Your task to perform on an android device: Open privacy settings Image 0: 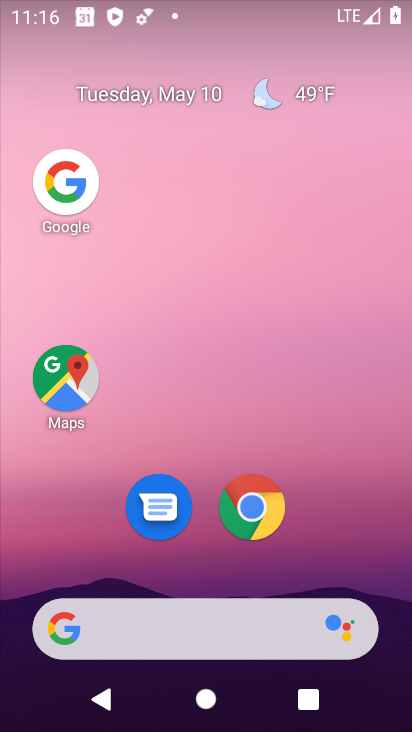
Step 0: drag from (343, 577) to (397, 123)
Your task to perform on an android device: Open privacy settings Image 1: 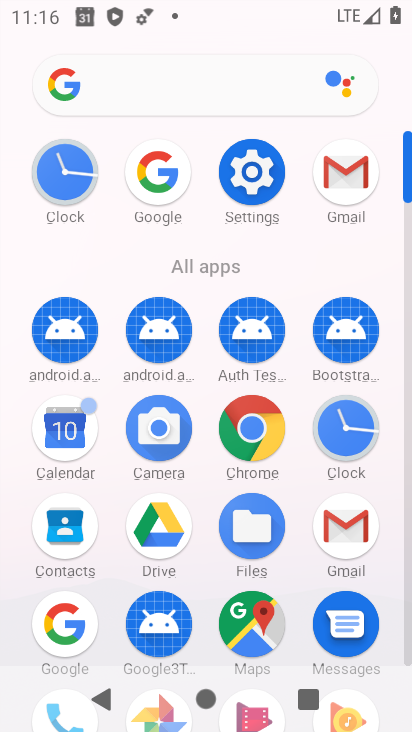
Step 1: click (263, 185)
Your task to perform on an android device: Open privacy settings Image 2: 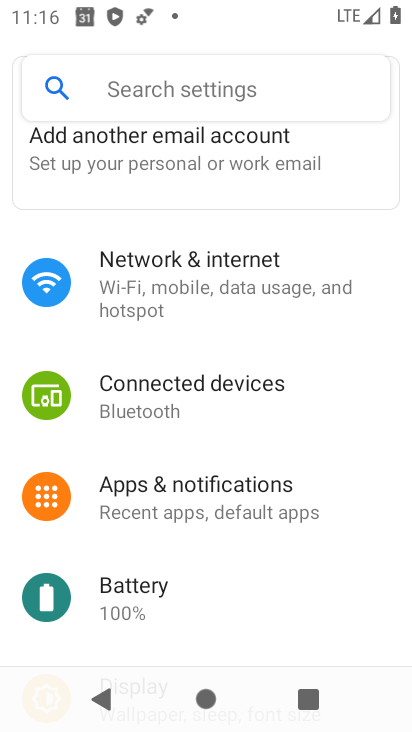
Step 2: drag from (264, 556) to (298, 161)
Your task to perform on an android device: Open privacy settings Image 3: 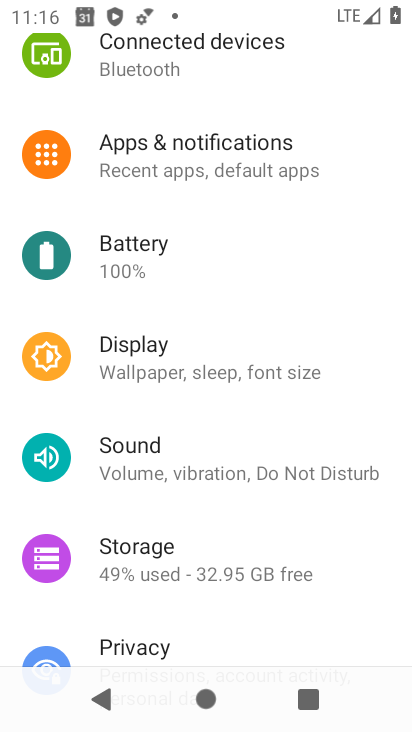
Step 3: click (212, 632)
Your task to perform on an android device: Open privacy settings Image 4: 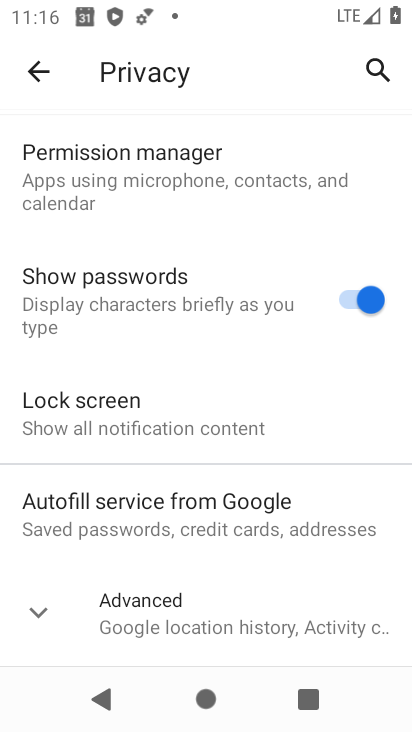
Step 4: task complete